Your task to perform on an android device: Play the last video I watched on Youtube Image 0: 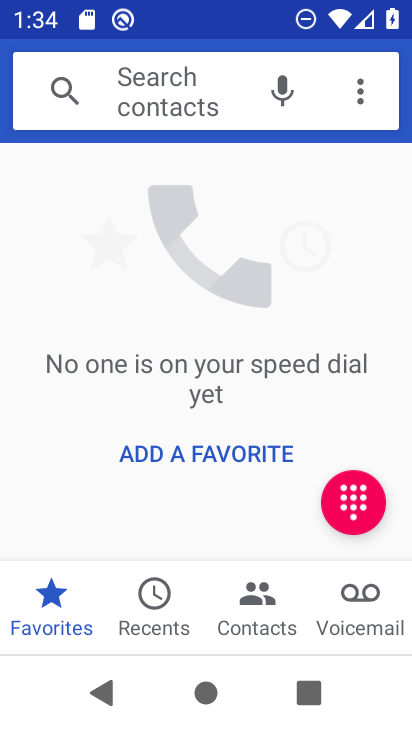
Step 0: press home button
Your task to perform on an android device: Play the last video I watched on Youtube Image 1: 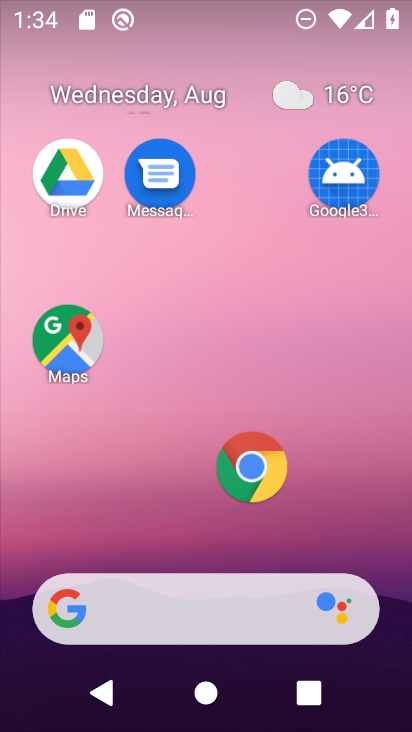
Step 1: drag from (133, 508) to (218, 119)
Your task to perform on an android device: Play the last video I watched on Youtube Image 2: 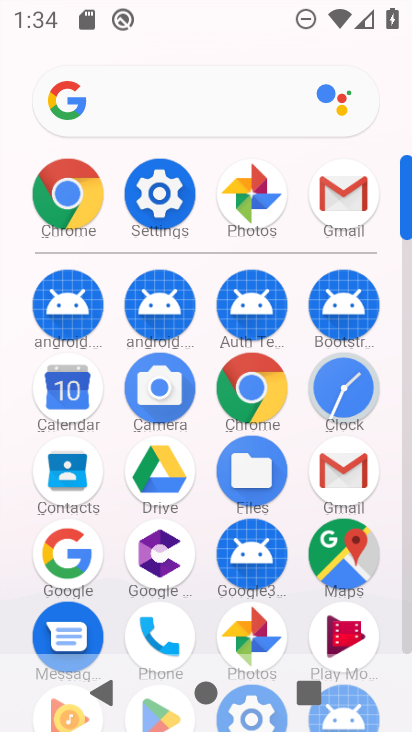
Step 2: drag from (206, 636) to (214, 285)
Your task to perform on an android device: Play the last video I watched on Youtube Image 3: 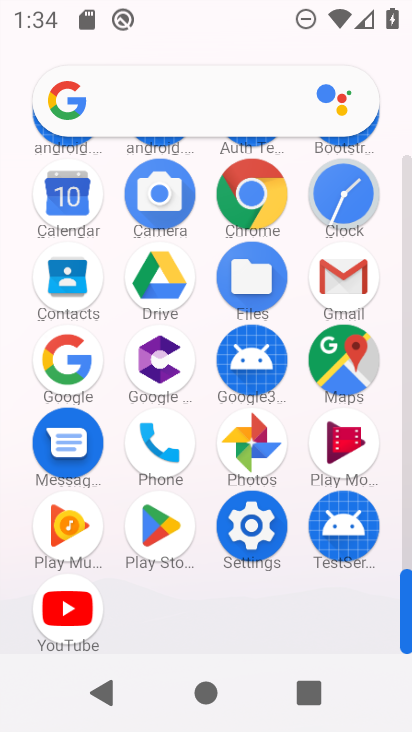
Step 3: click (53, 626)
Your task to perform on an android device: Play the last video I watched on Youtube Image 4: 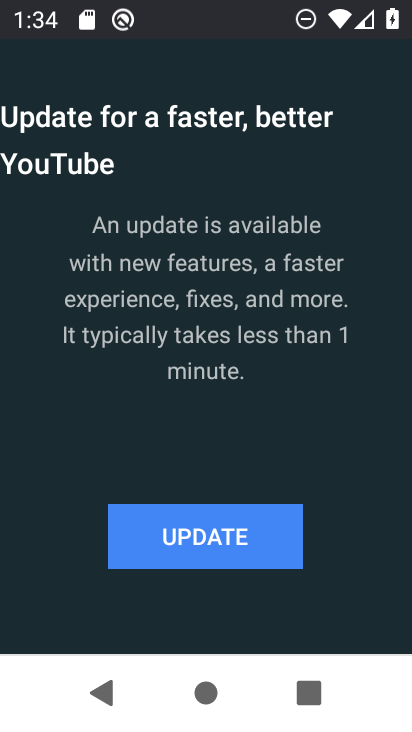
Step 4: click (255, 548)
Your task to perform on an android device: Play the last video I watched on Youtube Image 5: 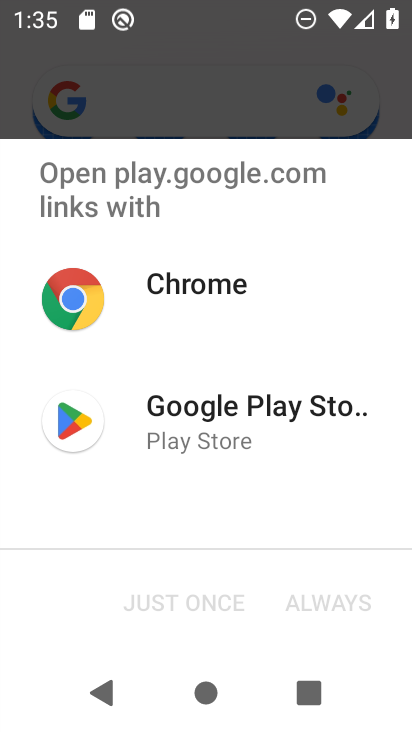
Step 5: click (203, 437)
Your task to perform on an android device: Play the last video I watched on Youtube Image 6: 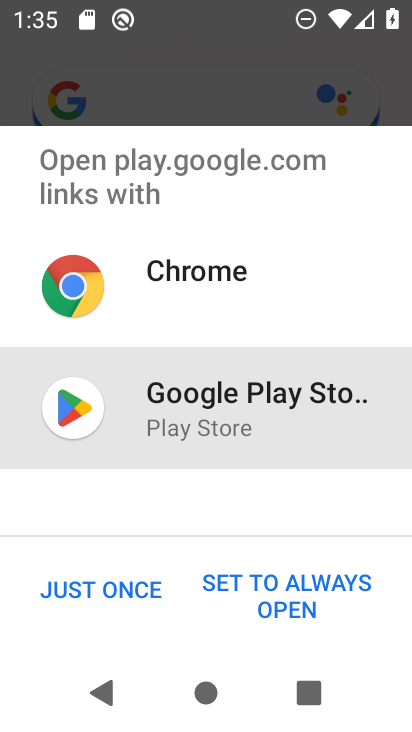
Step 6: click (130, 578)
Your task to perform on an android device: Play the last video I watched on Youtube Image 7: 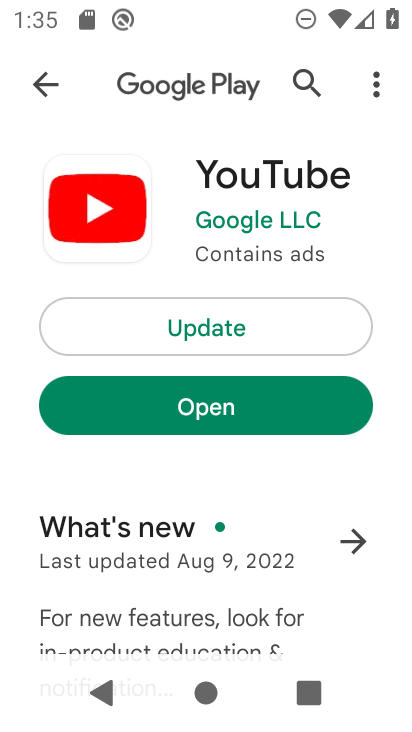
Step 7: click (195, 338)
Your task to perform on an android device: Play the last video I watched on Youtube Image 8: 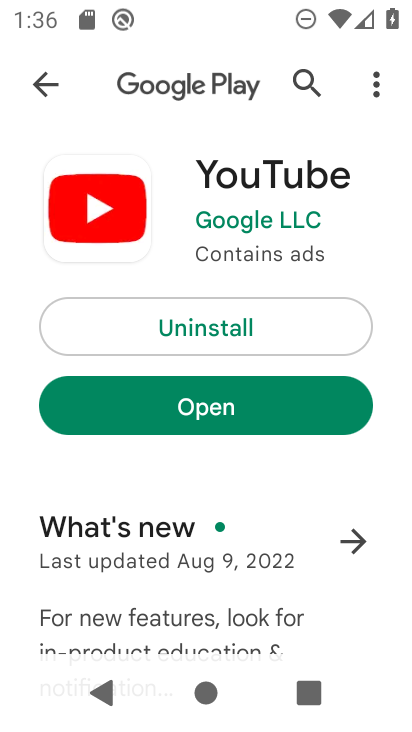
Step 8: click (161, 414)
Your task to perform on an android device: Play the last video I watched on Youtube Image 9: 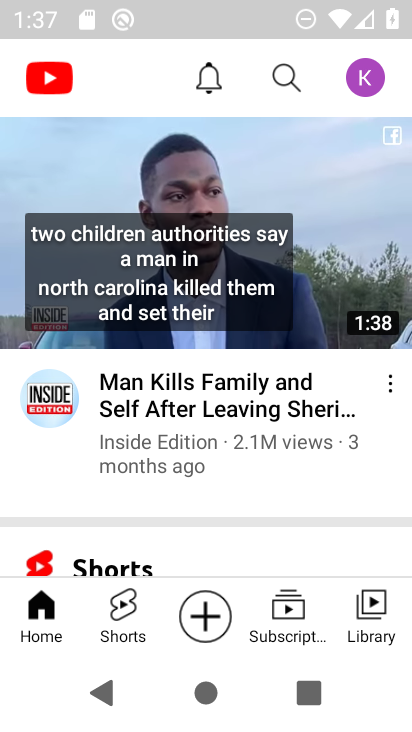
Step 9: click (385, 627)
Your task to perform on an android device: Play the last video I watched on Youtube Image 10: 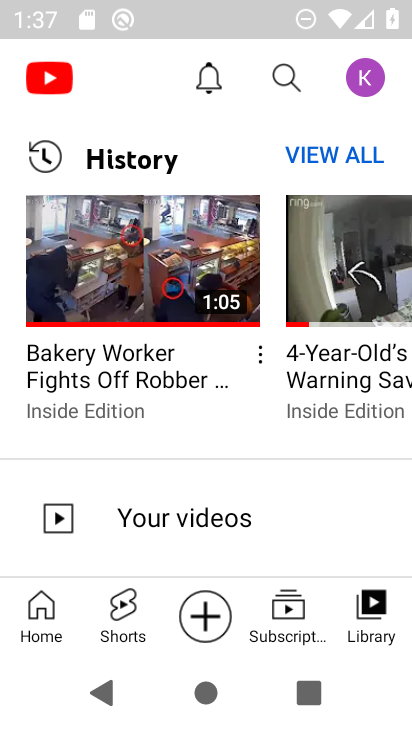
Step 10: click (77, 266)
Your task to perform on an android device: Play the last video I watched on Youtube Image 11: 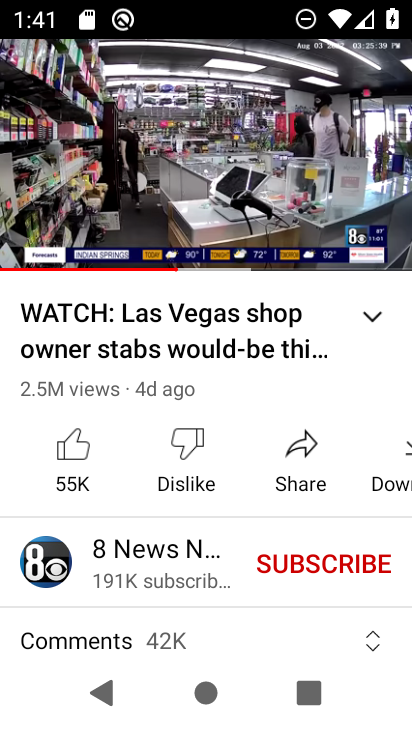
Step 11: task complete